Your task to perform on an android device: Go to Google Image 0: 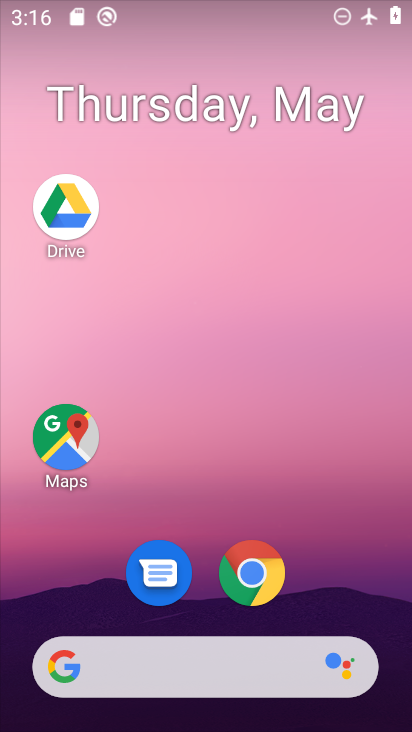
Step 0: drag from (297, 466) to (251, 245)
Your task to perform on an android device: Go to Google Image 1: 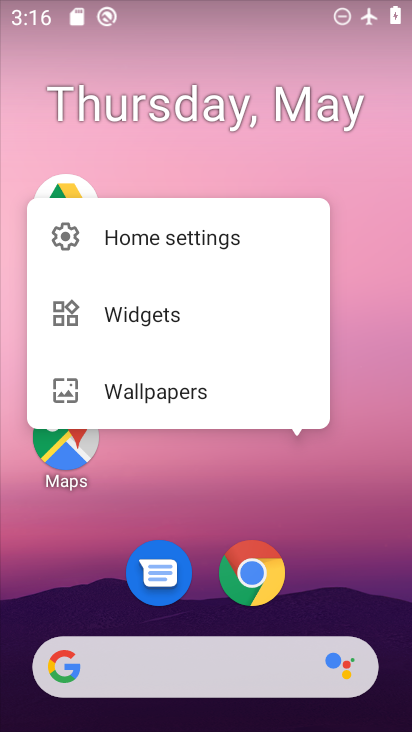
Step 1: click (68, 669)
Your task to perform on an android device: Go to Google Image 2: 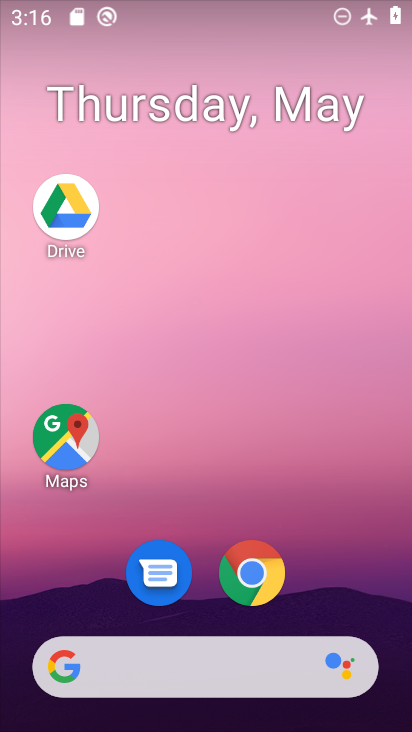
Step 2: click (68, 669)
Your task to perform on an android device: Go to Google Image 3: 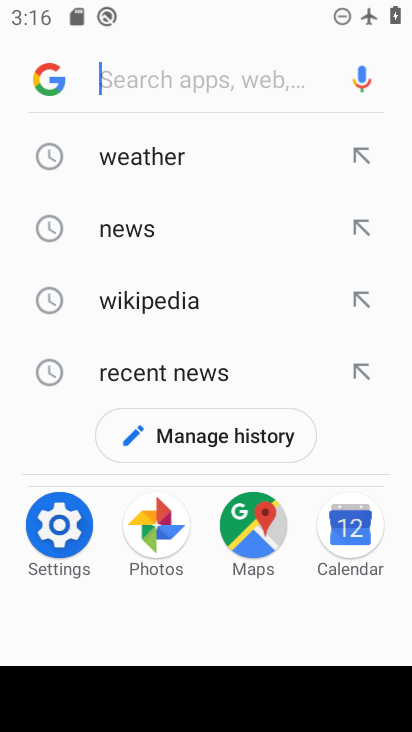
Step 3: task complete